Your task to perform on an android device: Toggle the flashlight Image 0: 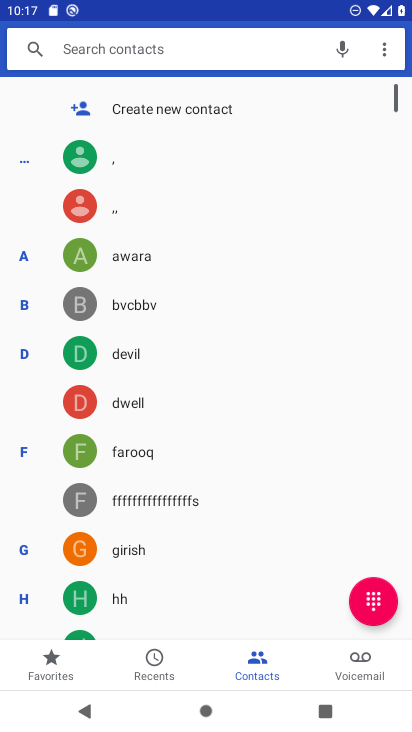
Step 0: press home button
Your task to perform on an android device: Toggle the flashlight Image 1: 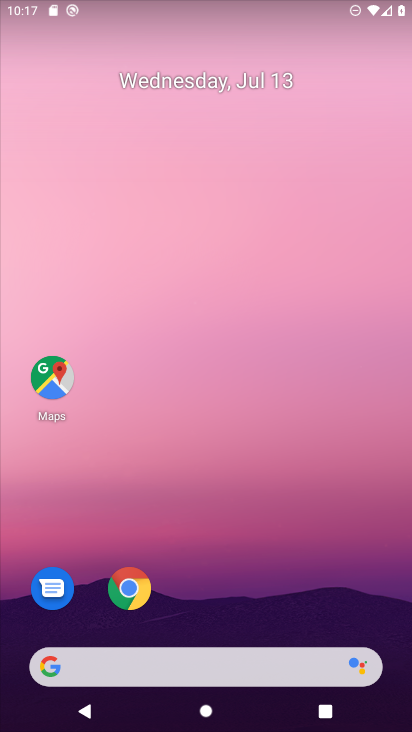
Step 1: drag from (198, 639) to (180, 96)
Your task to perform on an android device: Toggle the flashlight Image 2: 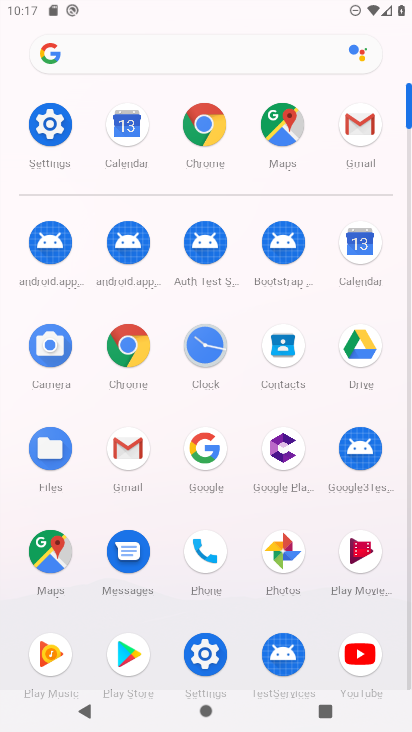
Step 2: click (186, 659)
Your task to perform on an android device: Toggle the flashlight Image 3: 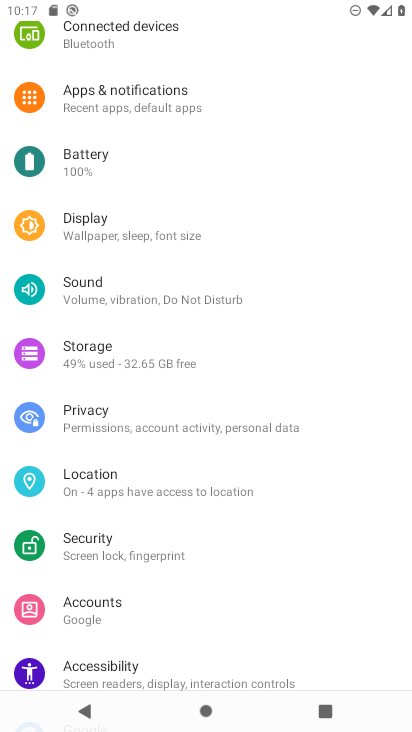
Step 3: task complete